Your task to perform on an android device: read, delete, or share a saved page in the chrome app Image 0: 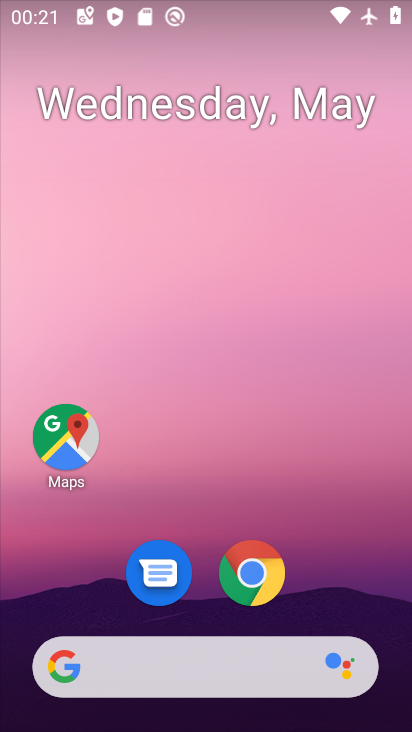
Step 0: drag from (317, 554) to (320, 235)
Your task to perform on an android device: read, delete, or share a saved page in the chrome app Image 1: 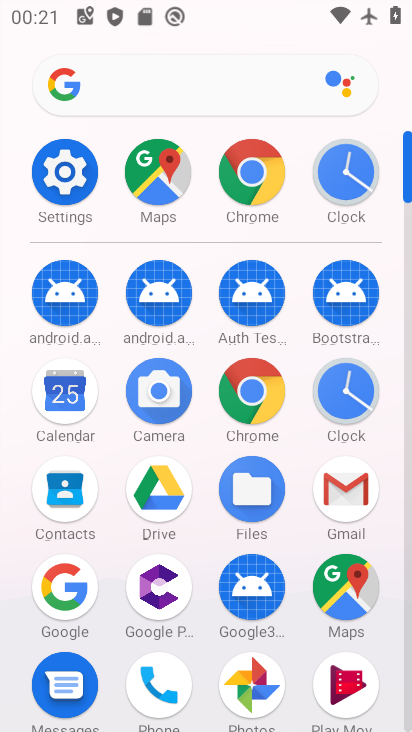
Step 1: click (249, 174)
Your task to perform on an android device: read, delete, or share a saved page in the chrome app Image 2: 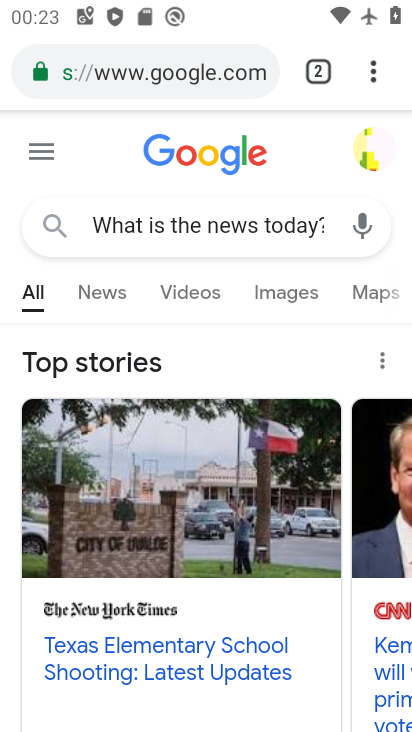
Step 2: click (372, 76)
Your task to perform on an android device: read, delete, or share a saved page in the chrome app Image 3: 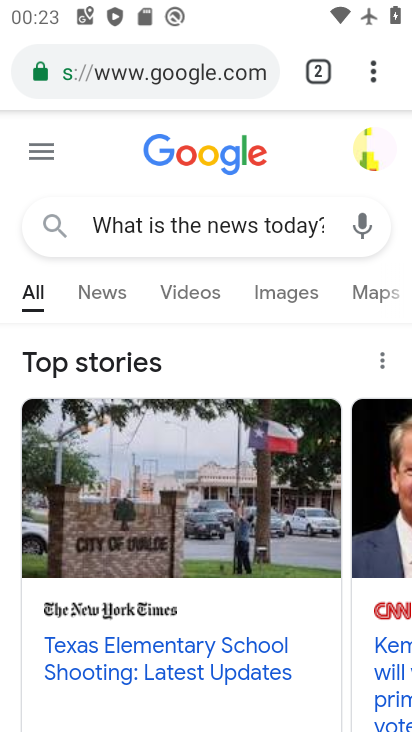
Step 3: click (373, 58)
Your task to perform on an android device: read, delete, or share a saved page in the chrome app Image 4: 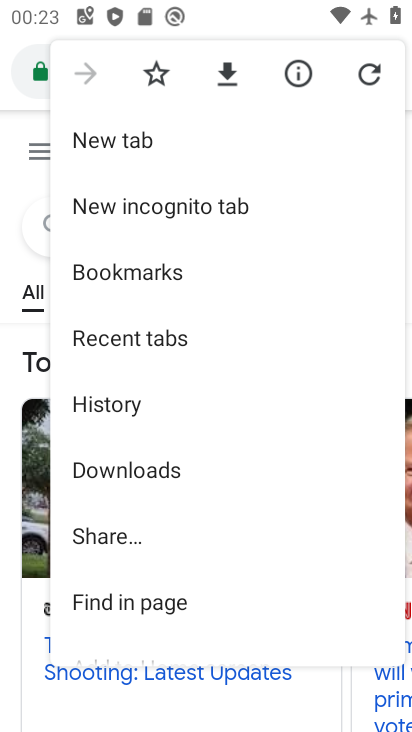
Step 4: click (127, 452)
Your task to perform on an android device: read, delete, or share a saved page in the chrome app Image 5: 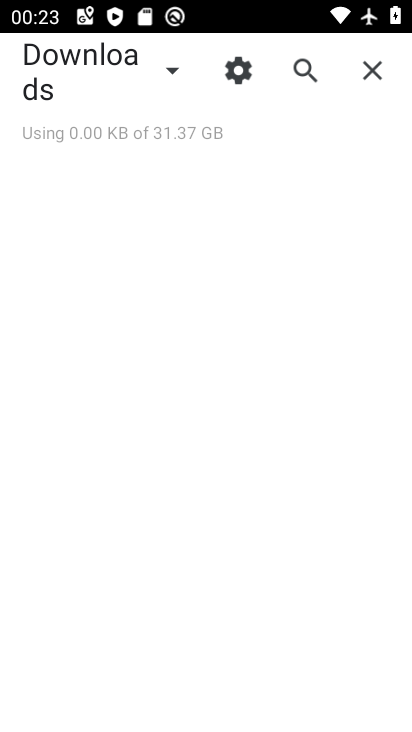
Step 5: click (178, 75)
Your task to perform on an android device: read, delete, or share a saved page in the chrome app Image 6: 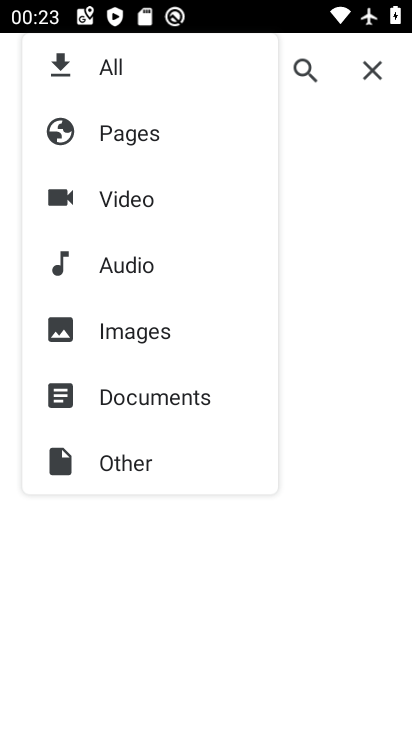
Step 6: click (158, 149)
Your task to perform on an android device: read, delete, or share a saved page in the chrome app Image 7: 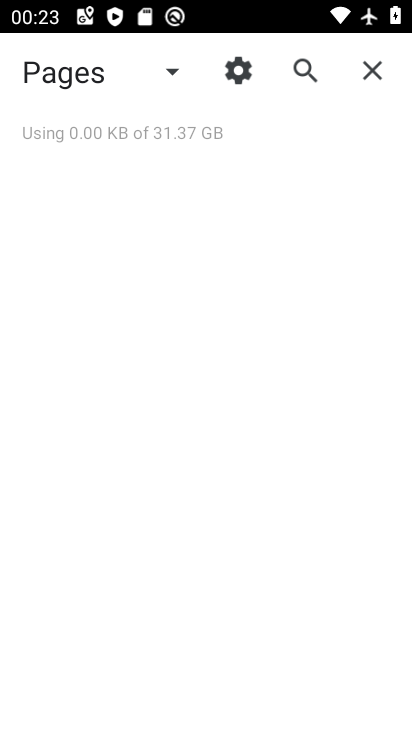
Step 7: task complete